Your task to perform on an android device: Go to Maps Image 0: 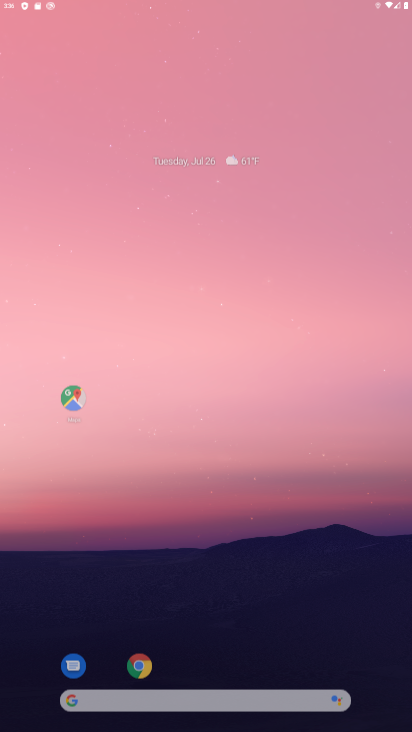
Step 0: press home button
Your task to perform on an android device: Go to Maps Image 1: 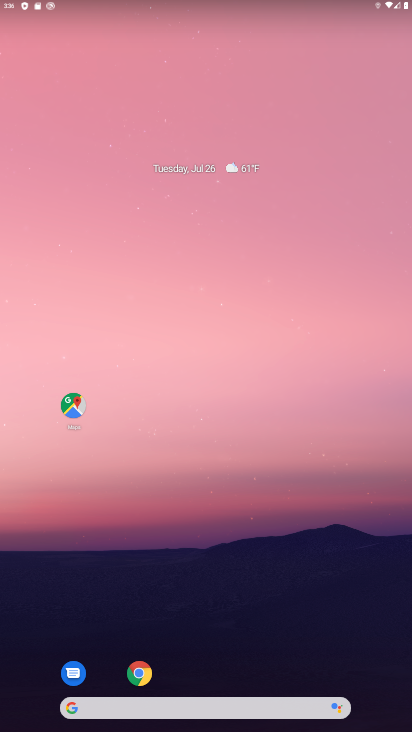
Step 1: click (69, 402)
Your task to perform on an android device: Go to Maps Image 2: 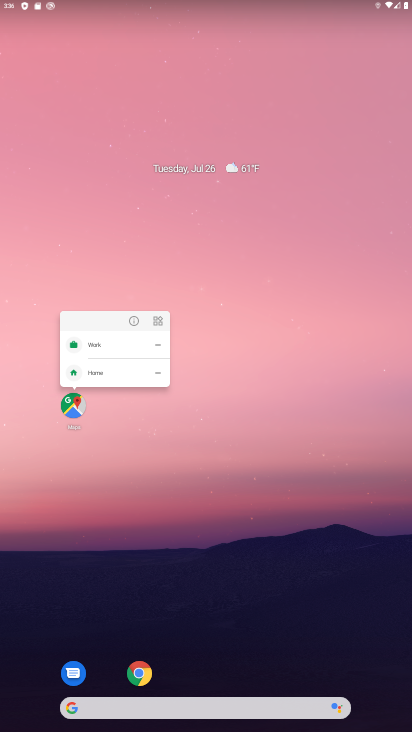
Step 2: click (69, 402)
Your task to perform on an android device: Go to Maps Image 3: 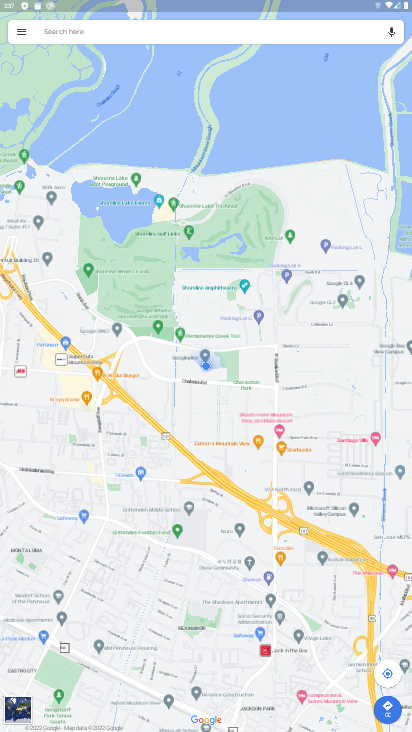
Step 3: task complete